Your task to perform on an android device: See recent photos Image 0: 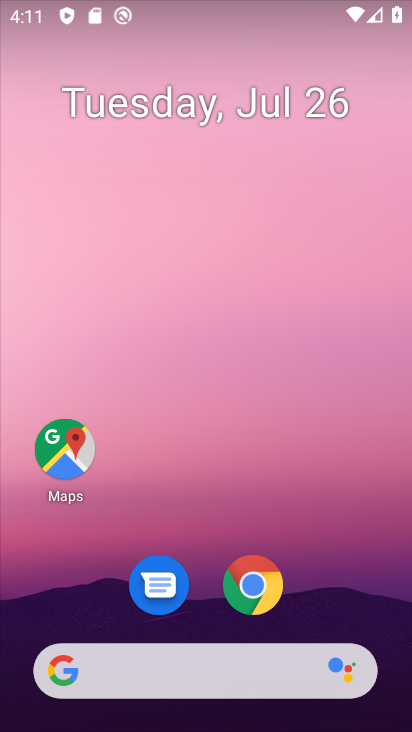
Step 0: drag from (321, 528) to (239, 24)
Your task to perform on an android device: See recent photos Image 1: 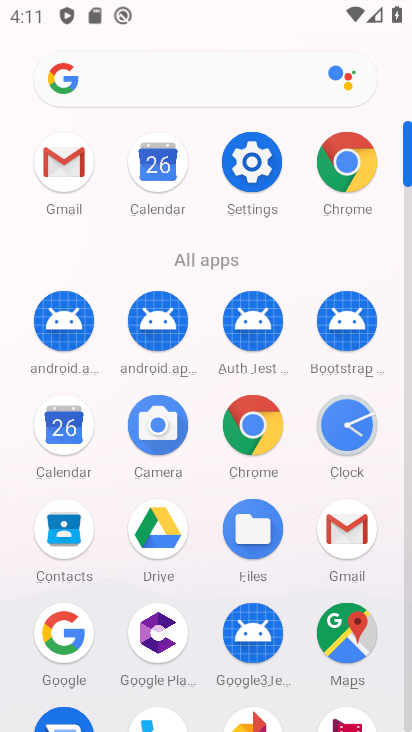
Step 1: drag from (313, 361) to (302, 89)
Your task to perform on an android device: See recent photos Image 2: 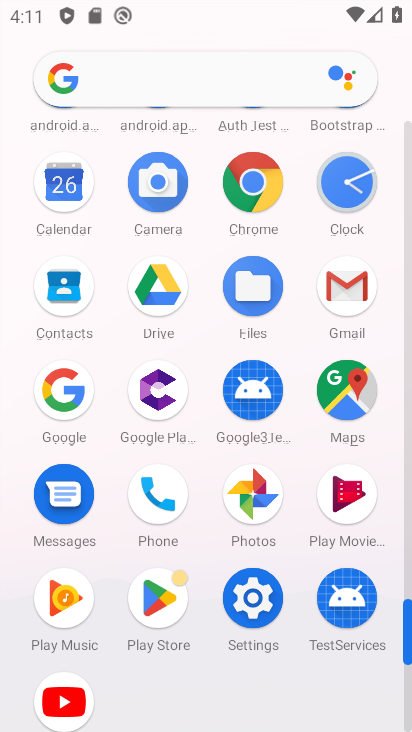
Step 2: click (257, 485)
Your task to perform on an android device: See recent photos Image 3: 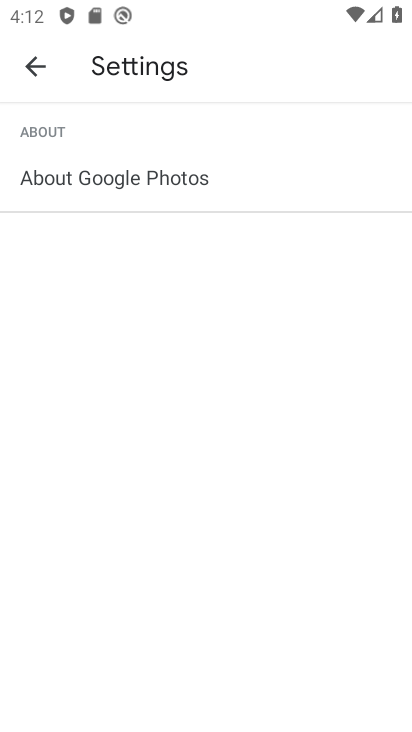
Step 3: click (30, 60)
Your task to perform on an android device: See recent photos Image 4: 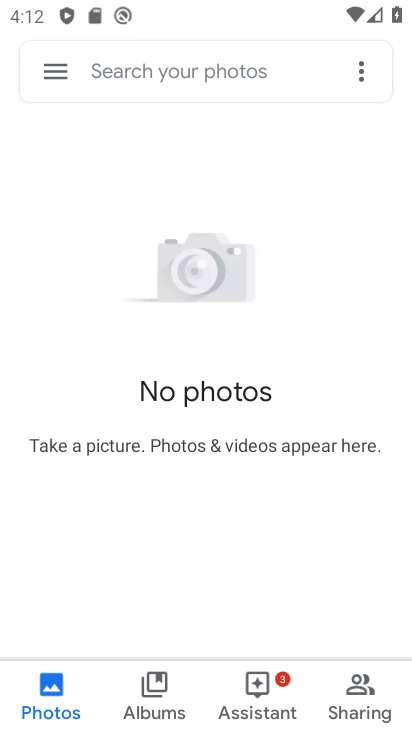
Step 4: task complete